Your task to perform on an android device: move a message to another label in the gmail app Image 0: 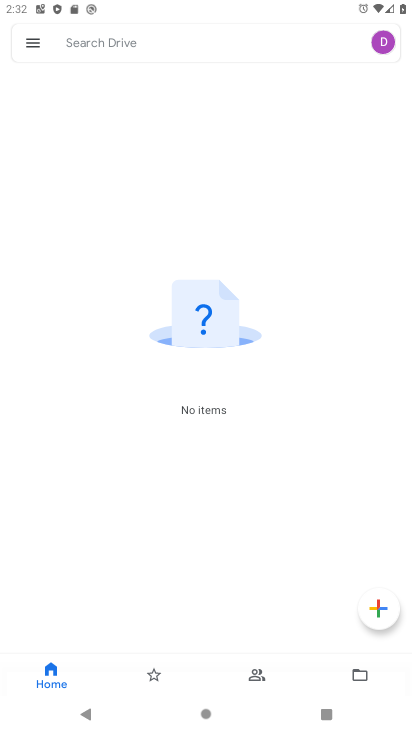
Step 0: press home button
Your task to perform on an android device: move a message to another label in the gmail app Image 1: 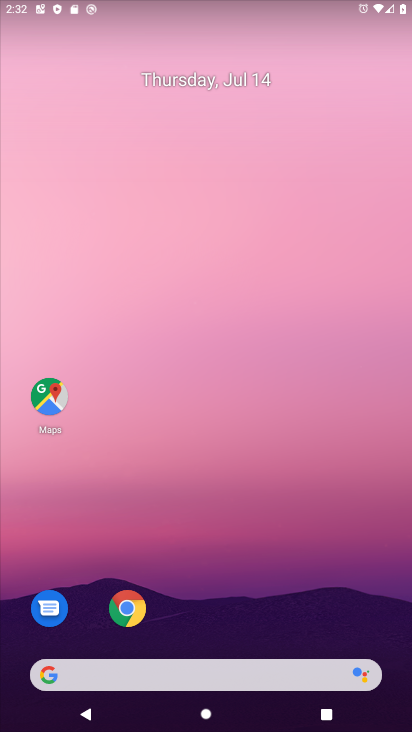
Step 1: drag from (232, 729) to (238, 133)
Your task to perform on an android device: move a message to another label in the gmail app Image 2: 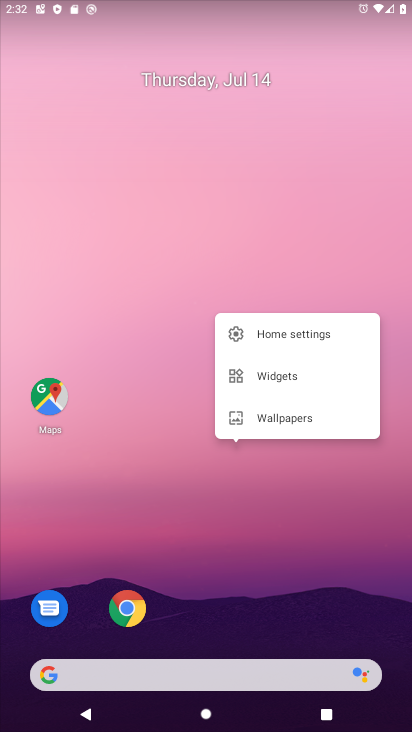
Step 2: click (308, 556)
Your task to perform on an android device: move a message to another label in the gmail app Image 3: 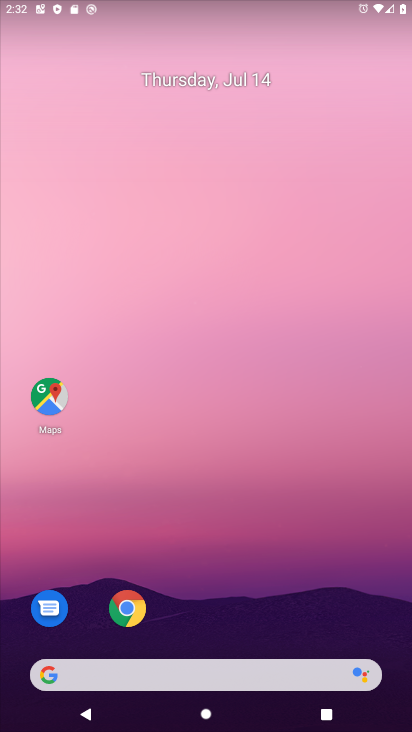
Step 3: drag from (255, 722) to (221, 171)
Your task to perform on an android device: move a message to another label in the gmail app Image 4: 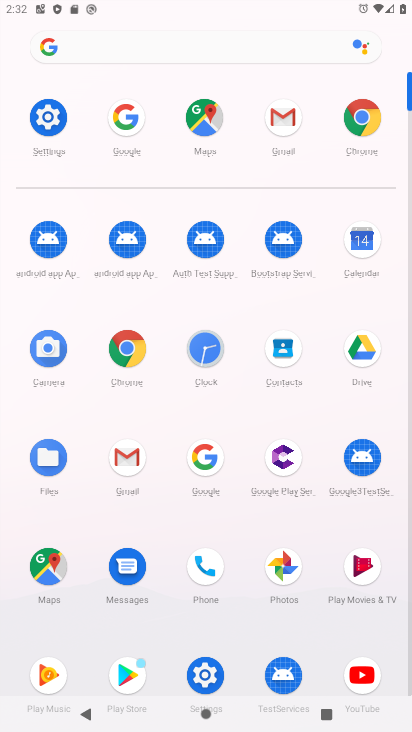
Step 4: click (128, 454)
Your task to perform on an android device: move a message to another label in the gmail app Image 5: 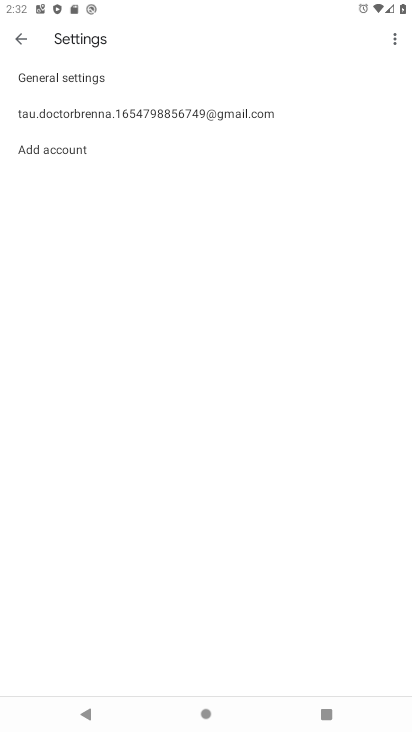
Step 5: click (22, 41)
Your task to perform on an android device: move a message to another label in the gmail app Image 6: 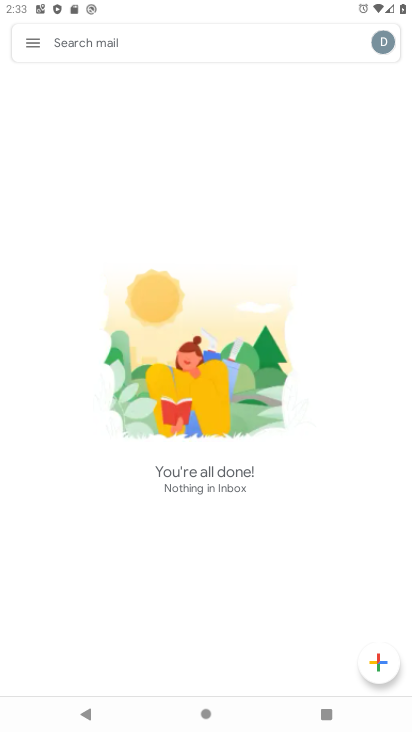
Step 6: task complete